Your task to perform on an android device: open app "Viber Messenger" (install if not already installed) Image 0: 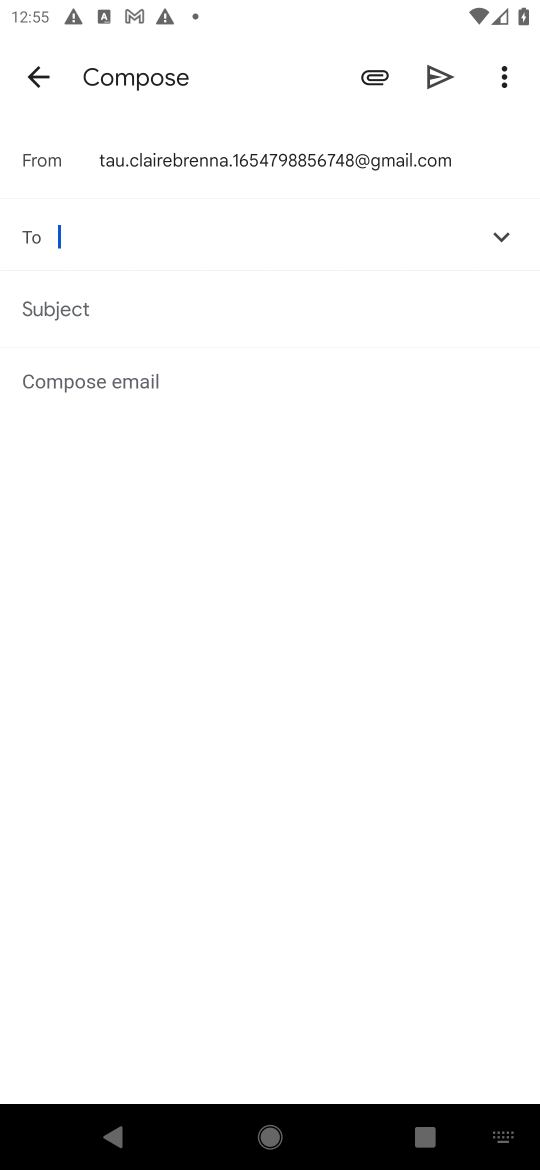
Step 0: press home button
Your task to perform on an android device: open app "Viber Messenger" (install if not already installed) Image 1: 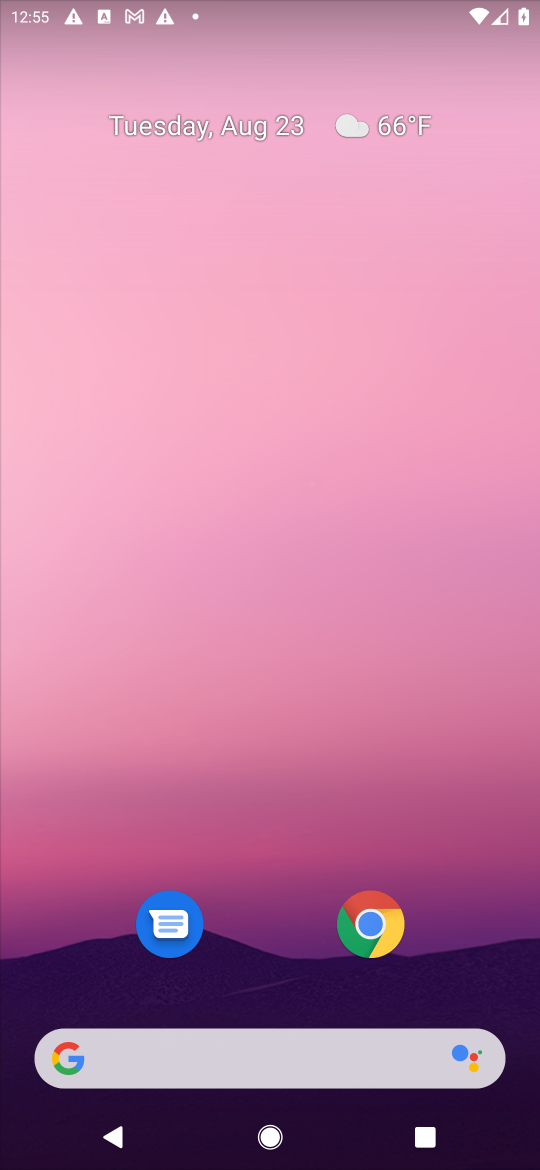
Step 1: drag from (465, 969) to (467, 107)
Your task to perform on an android device: open app "Viber Messenger" (install if not already installed) Image 2: 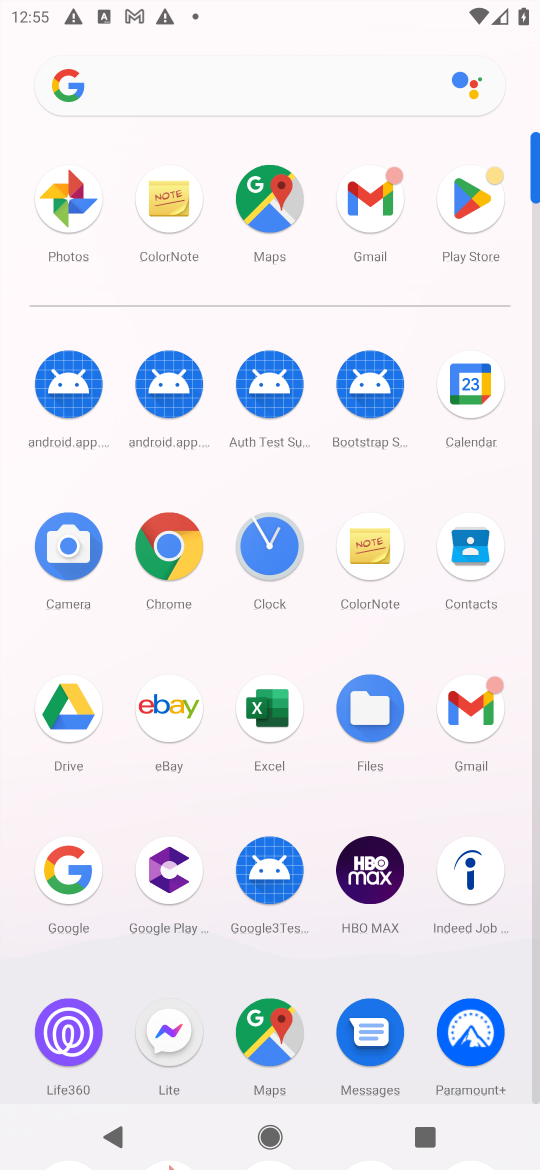
Step 2: click (482, 193)
Your task to perform on an android device: open app "Viber Messenger" (install if not already installed) Image 3: 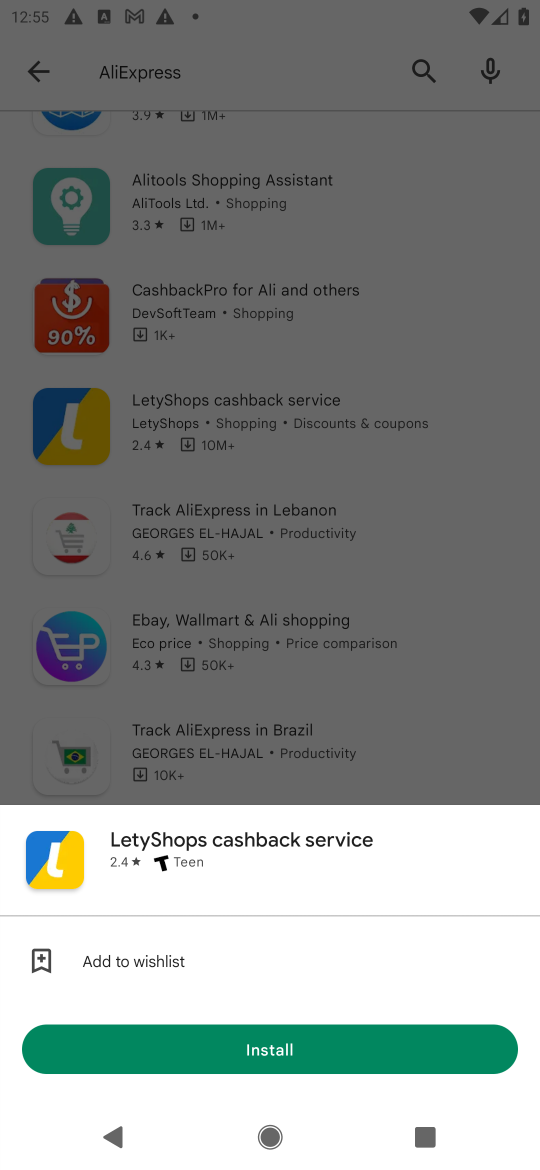
Step 3: press back button
Your task to perform on an android device: open app "Viber Messenger" (install if not already installed) Image 4: 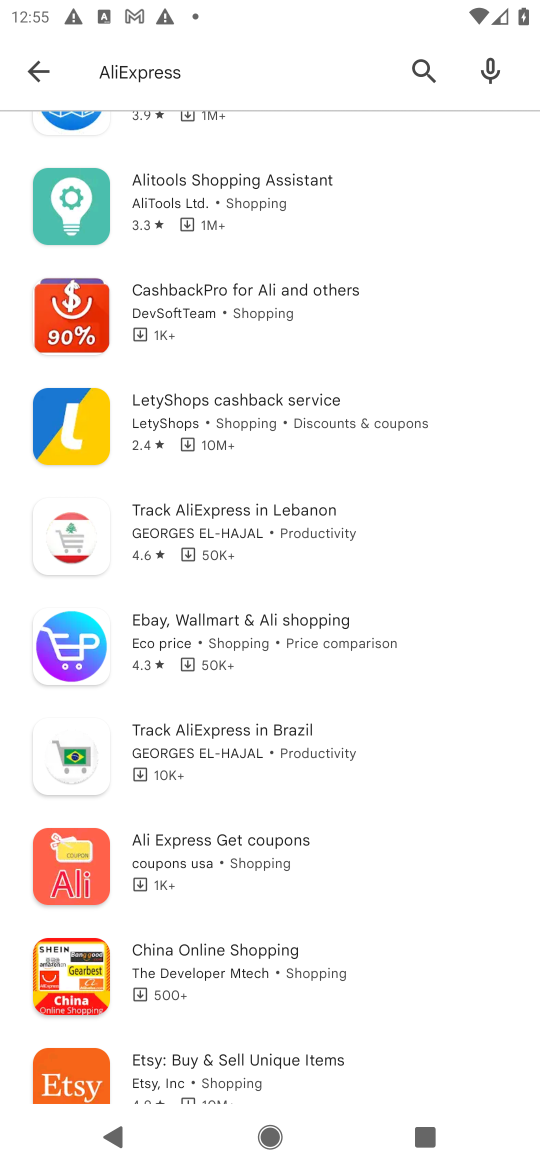
Step 4: press back button
Your task to perform on an android device: open app "Viber Messenger" (install if not already installed) Image 5: 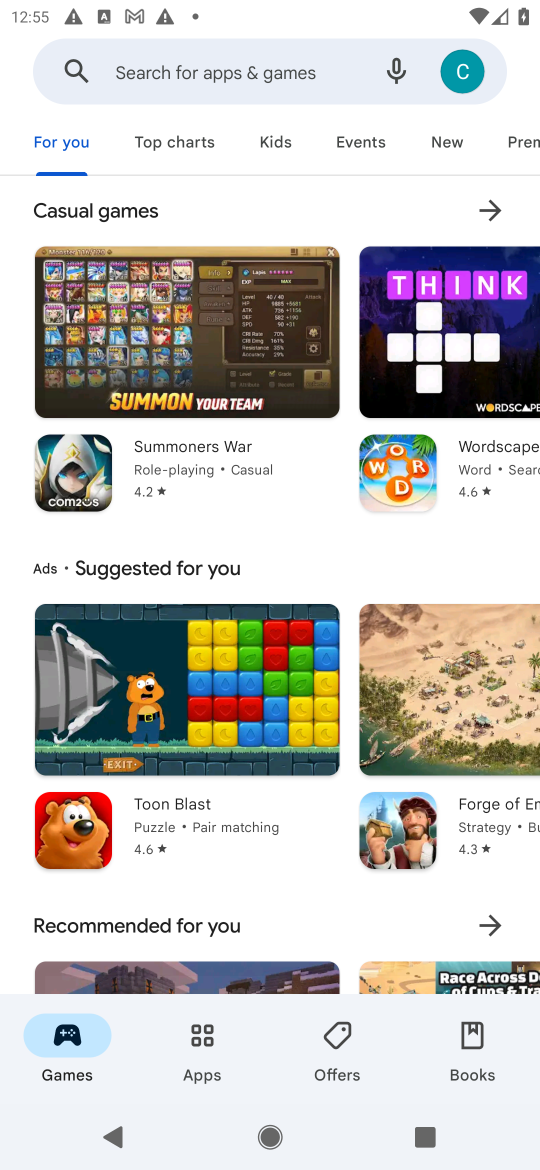
Step 5: click (252, 67)
Your task to perform on an android device: open app "Viber Messenger" (install if not already installed) Image 6: 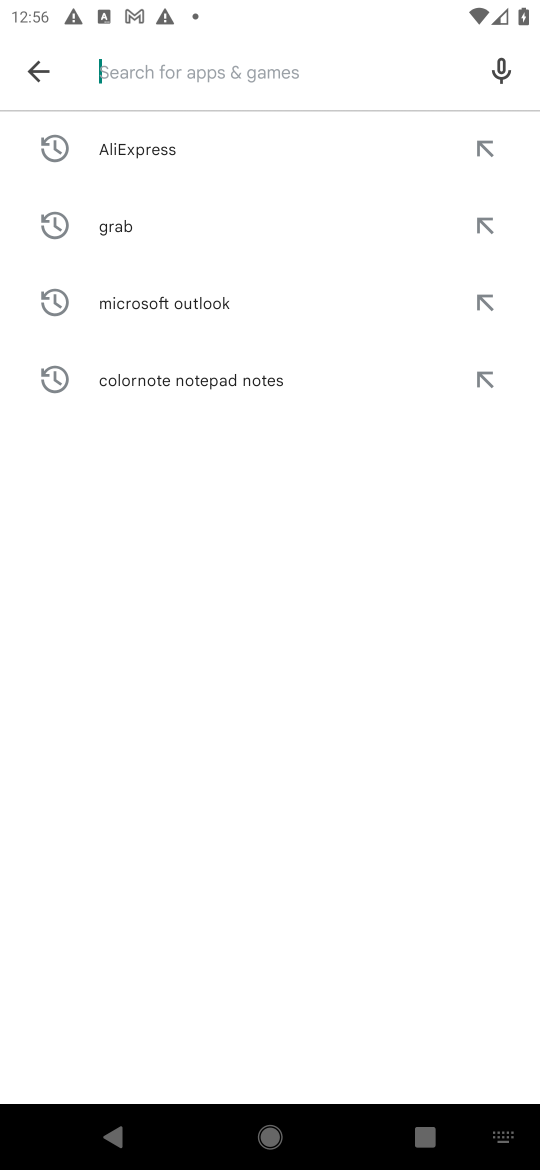
Step 6: type "Viber Messenger"
Your task to perform on an android device: open app "Viber Messenger" (install if not already installed) Image 7: 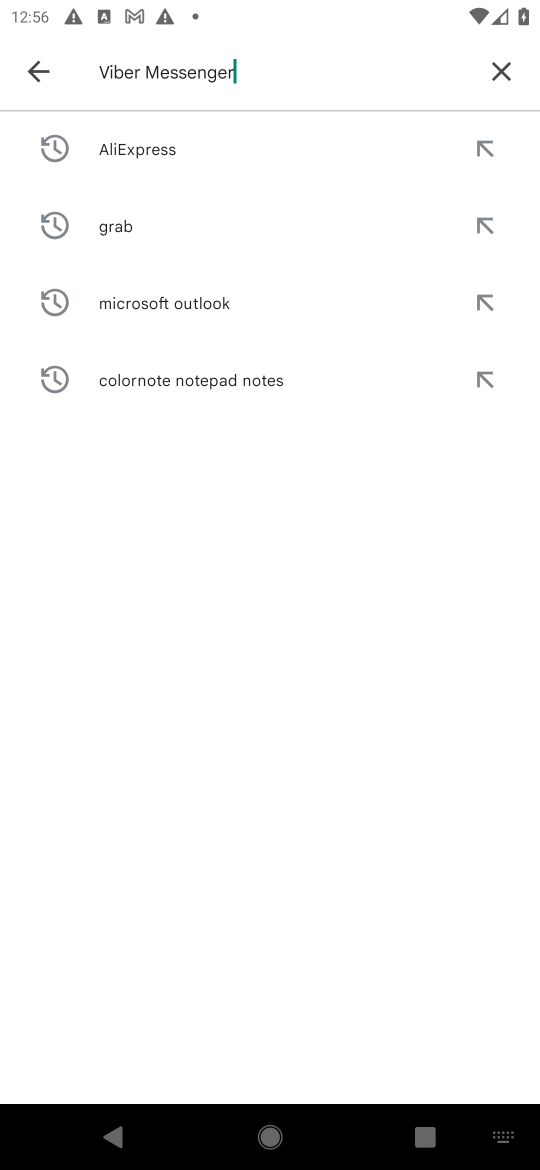
Step 7: press enter
Your task to perform on an android device: open app "Viber Messenger" (install if not already installed) Image 8: 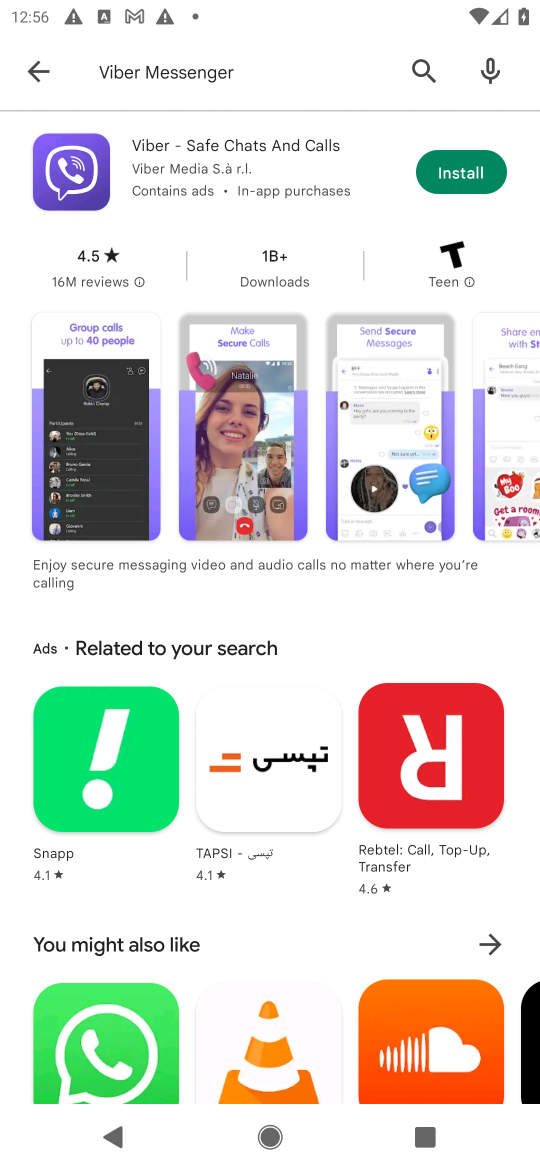
Step 8: click (471, 171)
Your task to perform on an android device: open app "Viber Messenger" (install if not already installed) Image 9: 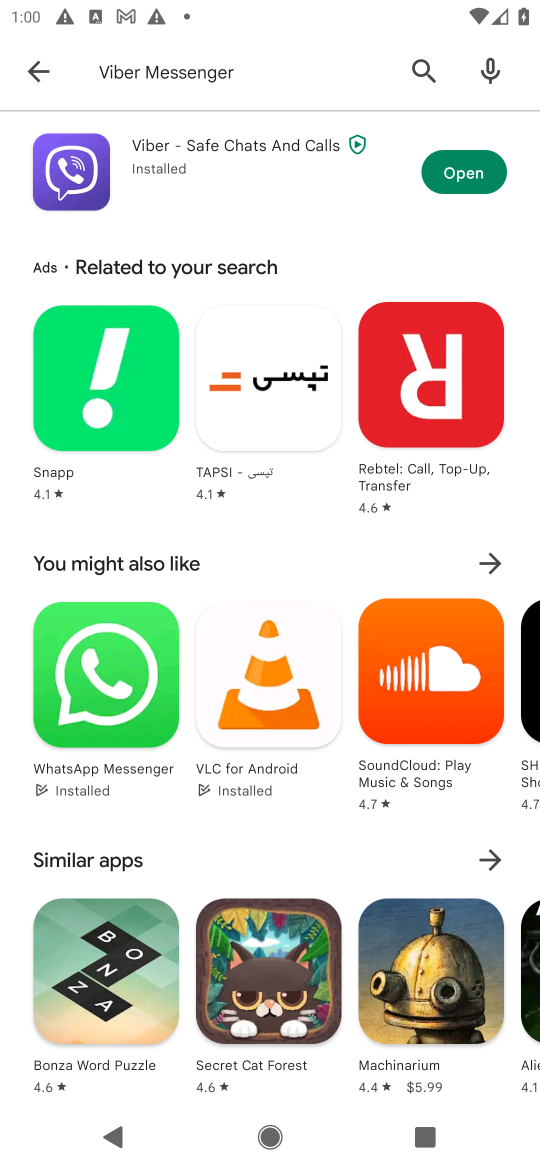
Step 9: click (473, 172)
Your task to perform on an android device: open app "Viber Messenger" (install if not already installed) Image 10: 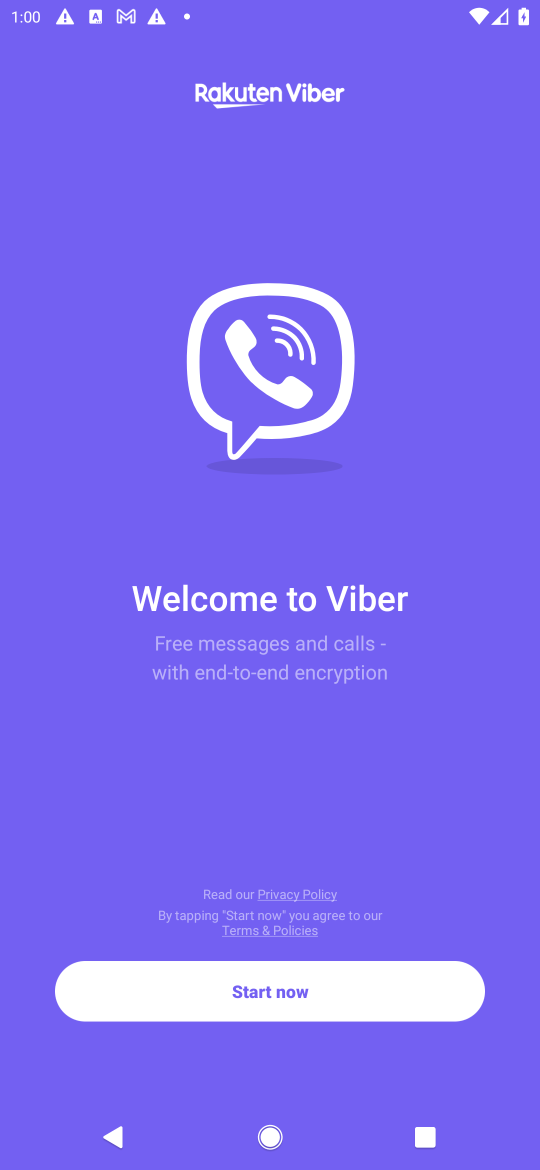
Step 10: task complete